Your task to perform on an android device: Open battery settings Image 0: 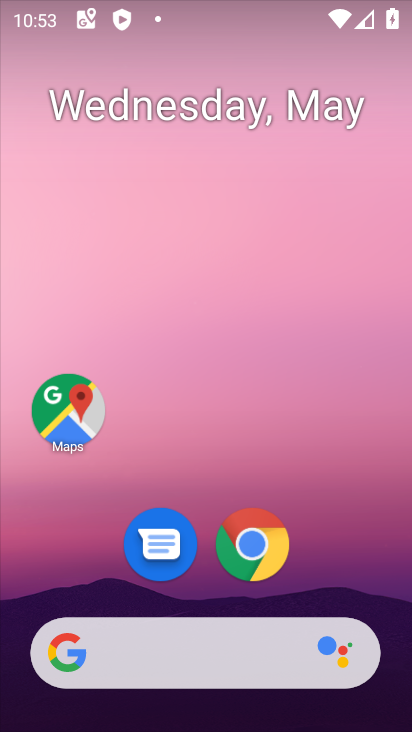
Step 0: drag from (301, 612) to (316, 82)
Your task to perform on an android device: Open battery settings Image 1: 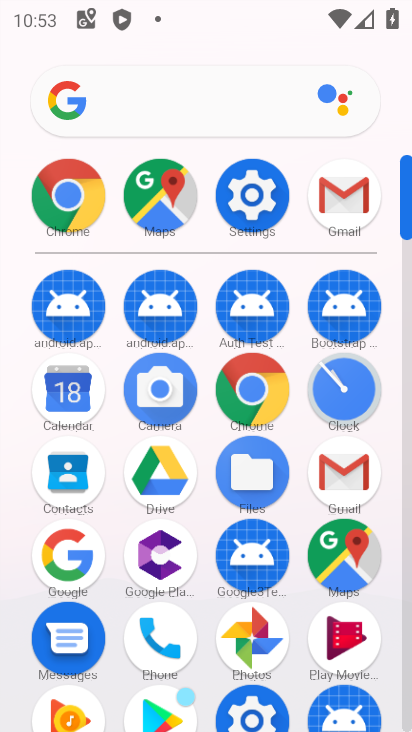
Step 1: click (254, 200)
Your task to perform on an android device: Open battery settings Image 2: 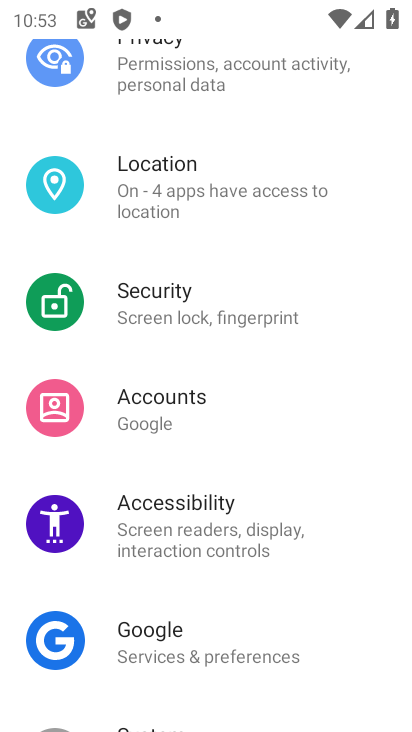
Step 2: drag from (207, 210) to (295, 617)
Your task to perform on an android device: Open battery settings Image 3: 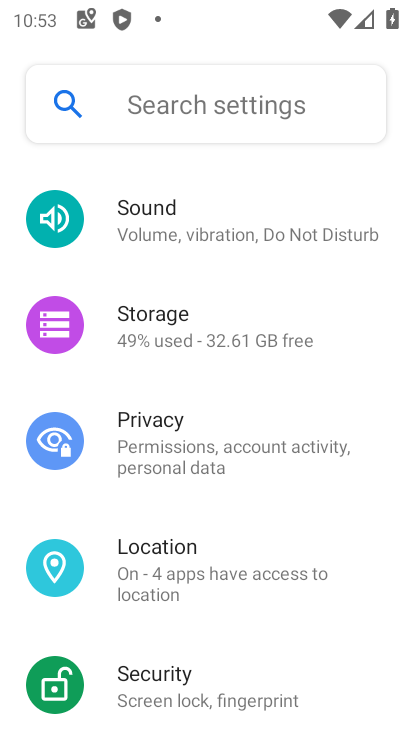
Step 3: drag from (223, 258) to (250, 548)
Your task to perform on an android device: Open battery settings Image 4: 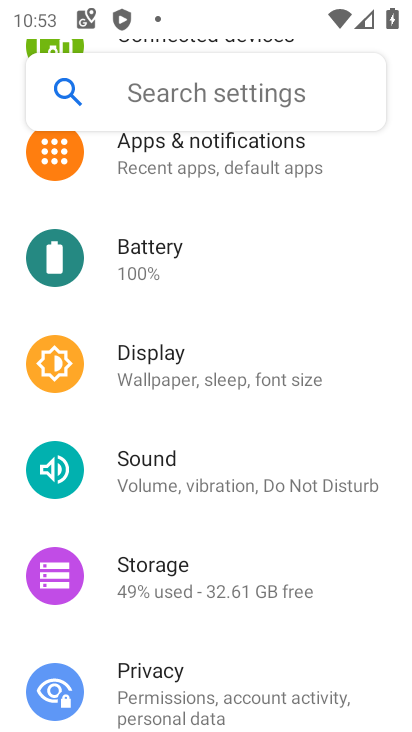
Step 4: click (152, 270)
Your task to perform on an android device: Open battery settings Image 5: 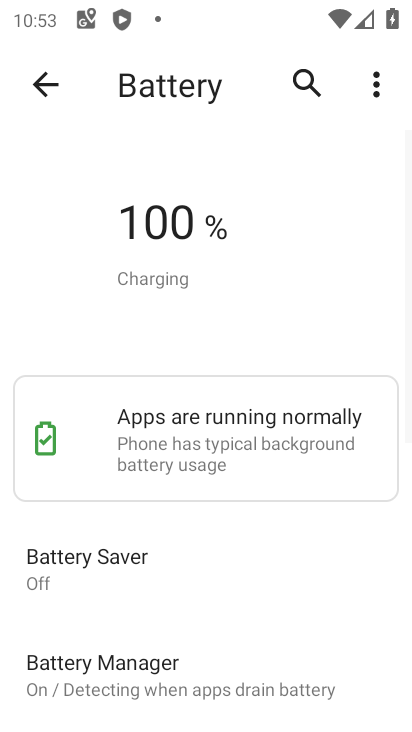
Step 5: task complete